Your task to perform on an android device: delete the emails in spam in the gmail app Image 0: 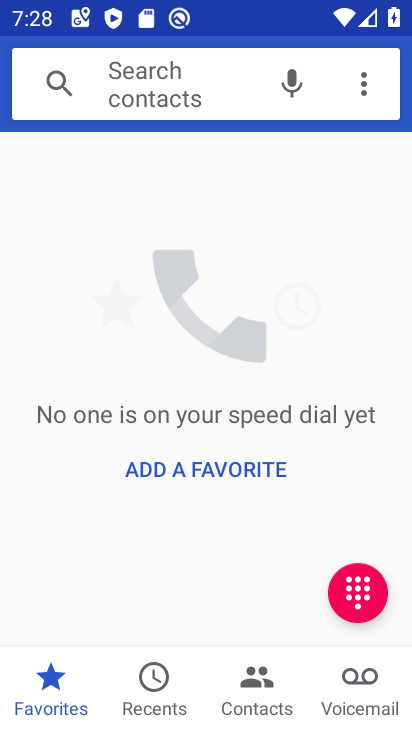
Step 0: press home button
Your task to perform on an android device: delete the emails in spam in the gmail app Image 1: 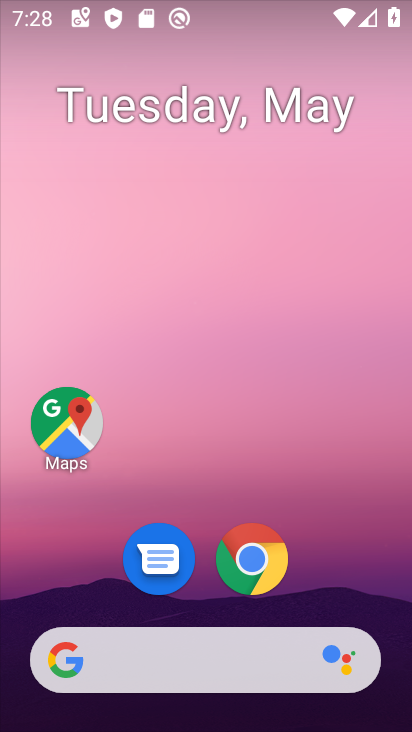
Step 1: drag from (391, 644) to (340, 98)
Your task to perform on an android device: delete the emails in spam in the gmail app Image 2: 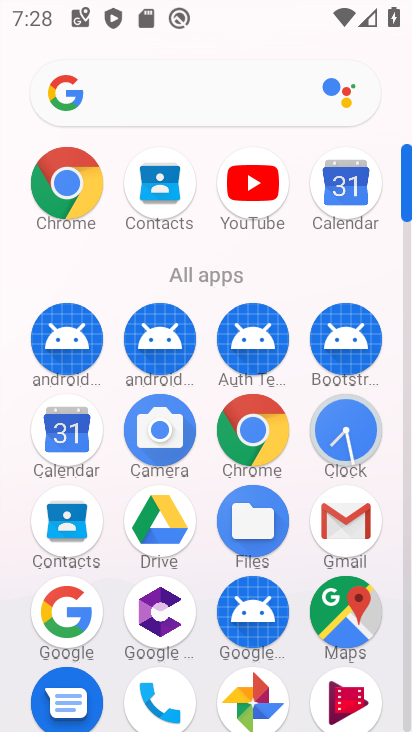
Step 2: click (347, 528)
Your task to perform on an android device: delete the emails in spam in the gmail app Image 3: 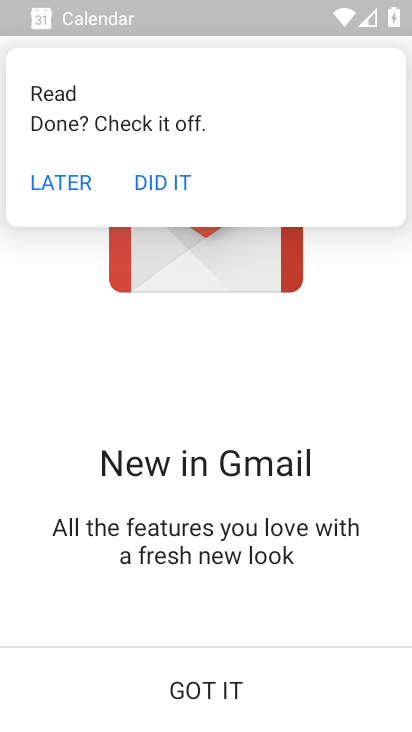
Step 3: click (226, 678)
Your task to perform on an android device: delete the emails in spam in the gmail app Image 4: 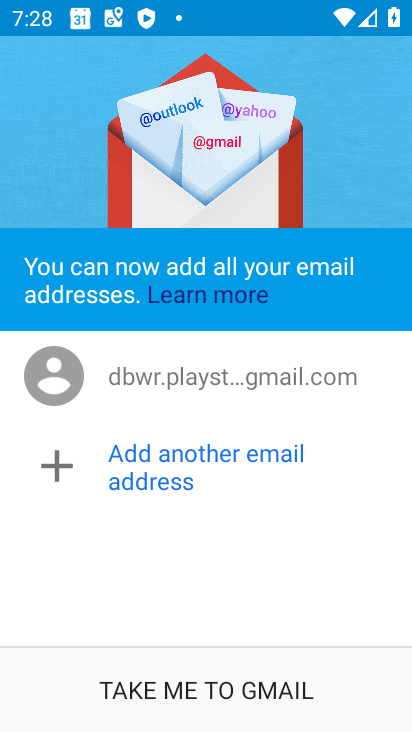
Step 4: click (225, 678)
Your task to perform on an android device: delete the emails in spam in the gmail app Image 5: 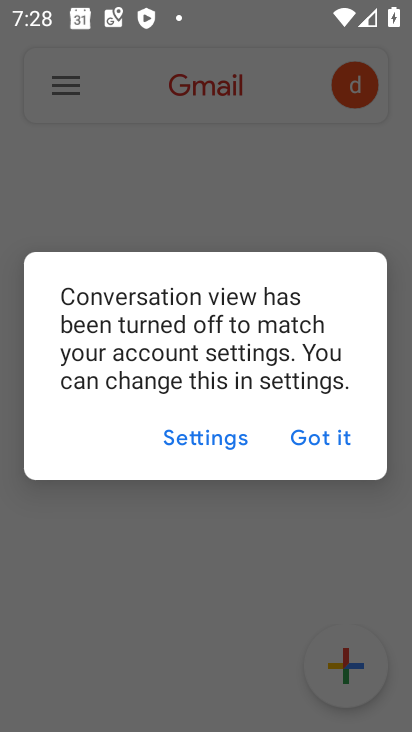
Step 5: click (341, 431)
Your task to perform on an android device: delete the emails in spam in the gmail app Image 6: 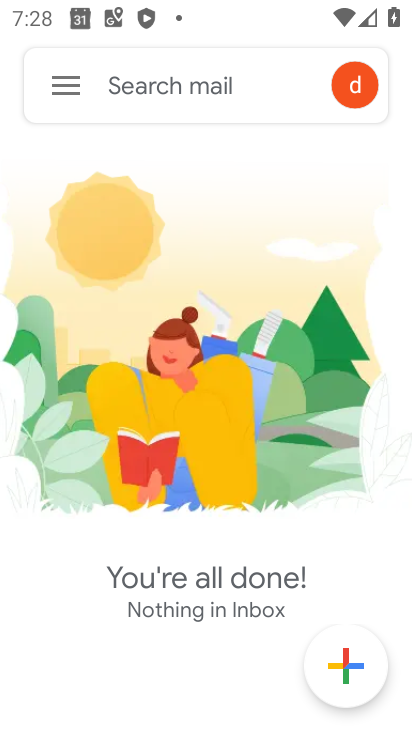
Step 6: click (68, 84)
Your task to perform on an android device: delete the emails in spam in the gmail app Image 7: 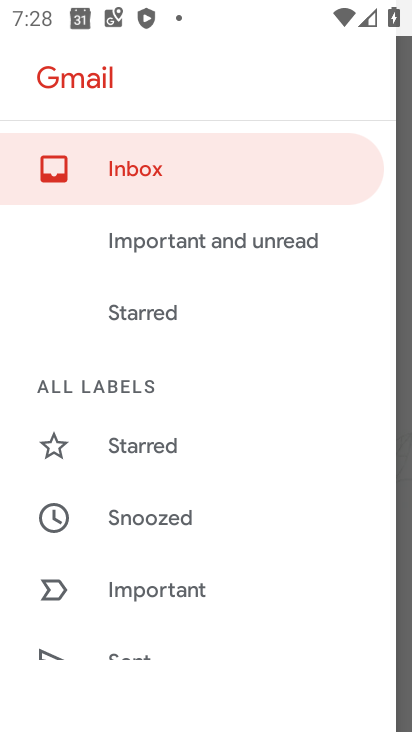
Step 7: drag from (185, 603) to (212, 68)
Your task to perform on an android device: delete the emails in spam in the gmail app Image 8: 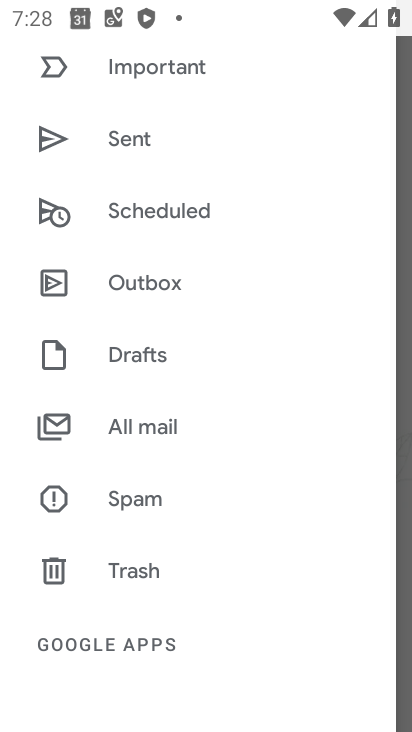
Step 8: click (156, 502)
Your task to perform on an android device: delete the emails in spam in the gmail app Image 9: 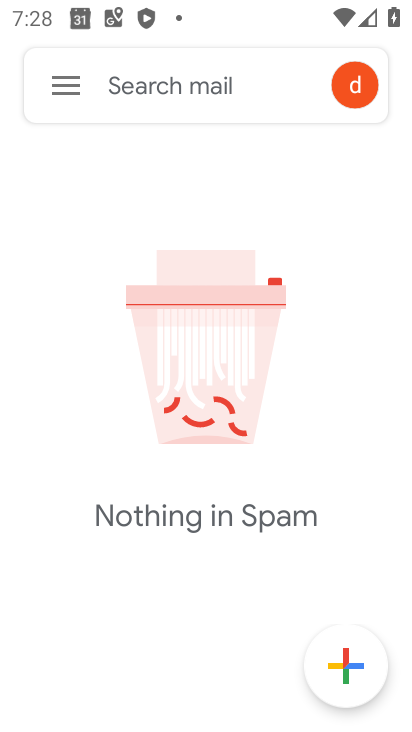
Step 9: task complete